Your task to perform on an android device: open app "HBO Max: Stream TV & Movies" Image 0: 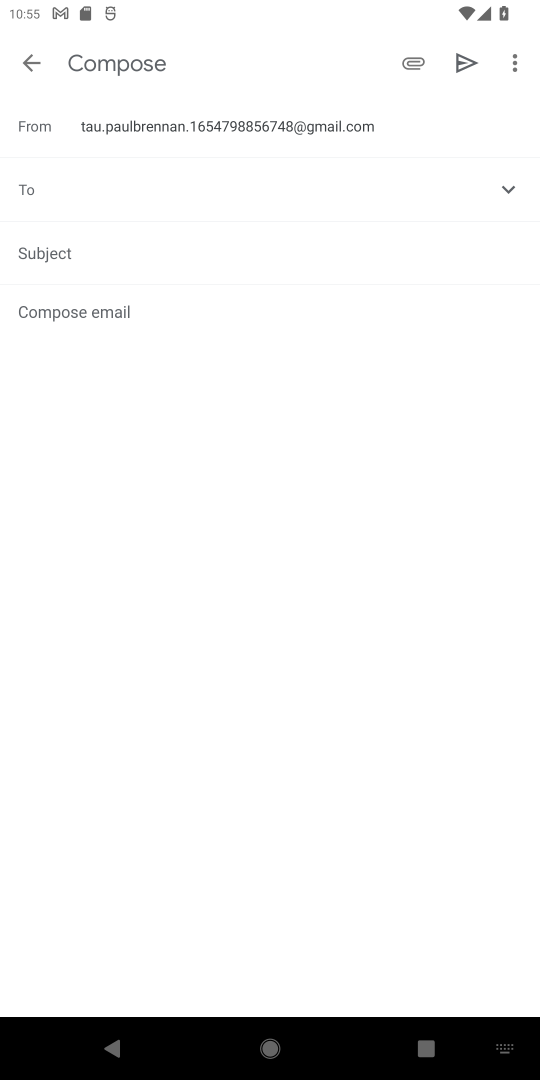
Step 0: press home button
Your task to perform on an android device: open app "HBO Max: Stream TV & Movies" Image 1: 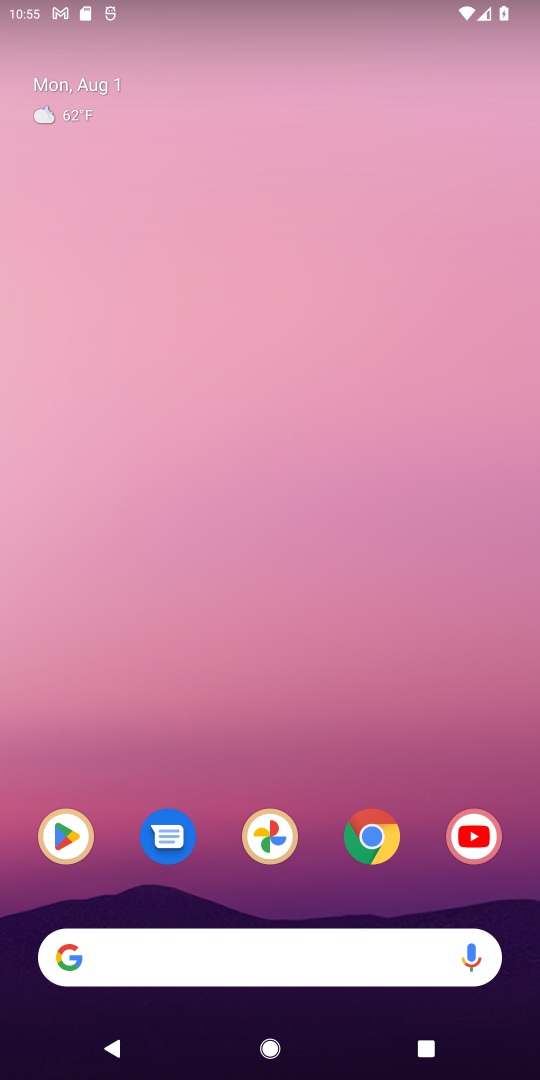
Step 1: click (67, 842)
Your task to perform on an android device: open app "HBO Max: Stream TV & Movies" Image 2: 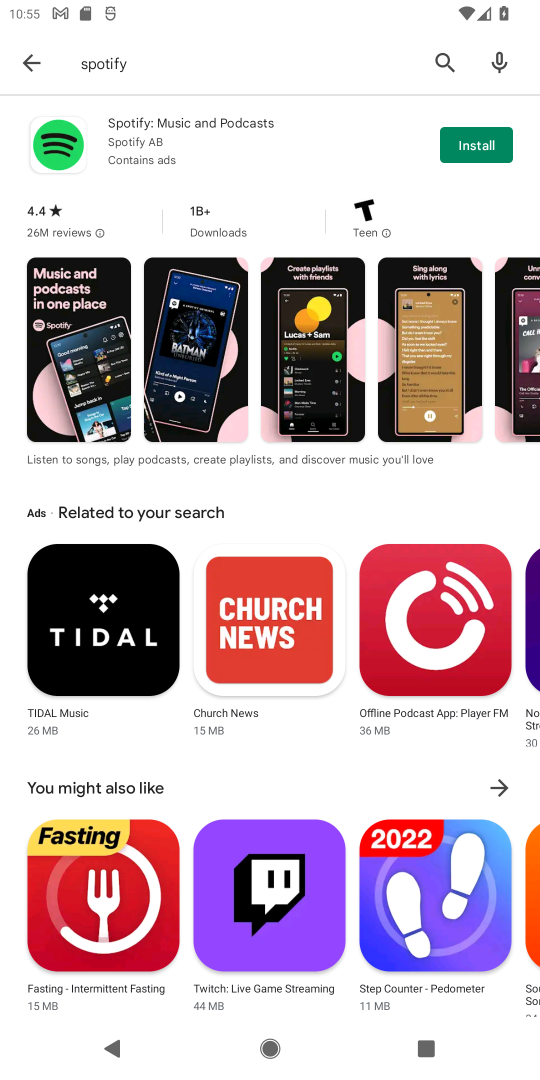
Step 2: click (440, 63)
Your task to perform on an android device: open app "HBO Max: Stream TV & Movies" Image 3: 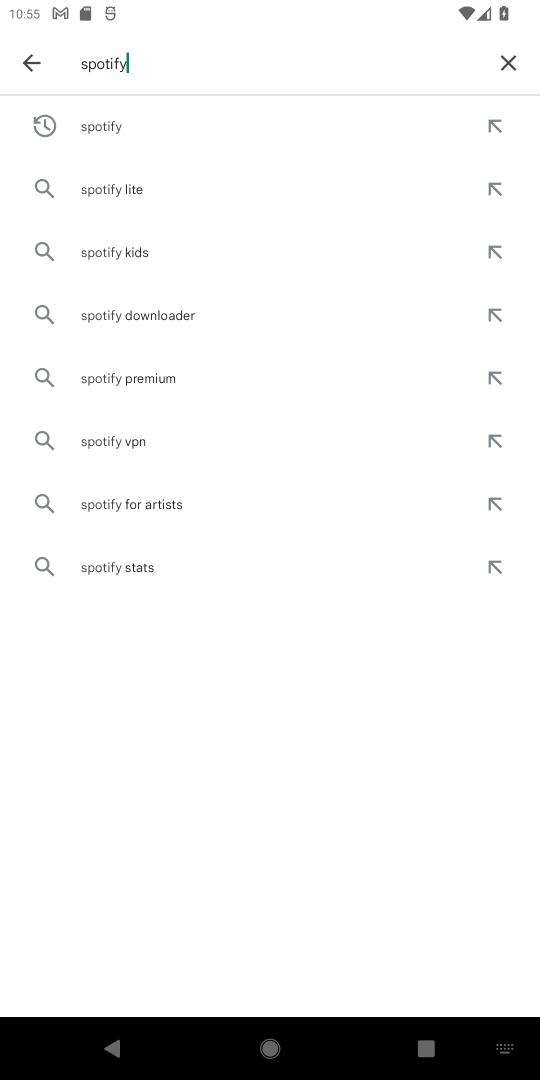
Step 3: click (507, 63)
Your task to perform on an android device: open app "HBO Max: Stream TV & Movies" Image 4: 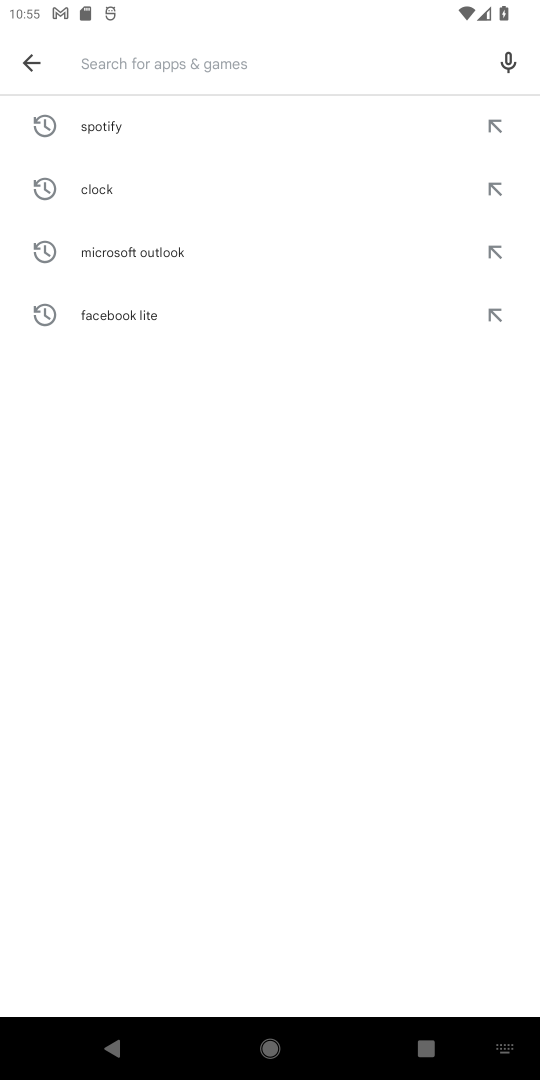
Step 4: type "hbo"
Your task to perform on an android device: open app "HBO Max: Stream TV & Movies" Image 5: 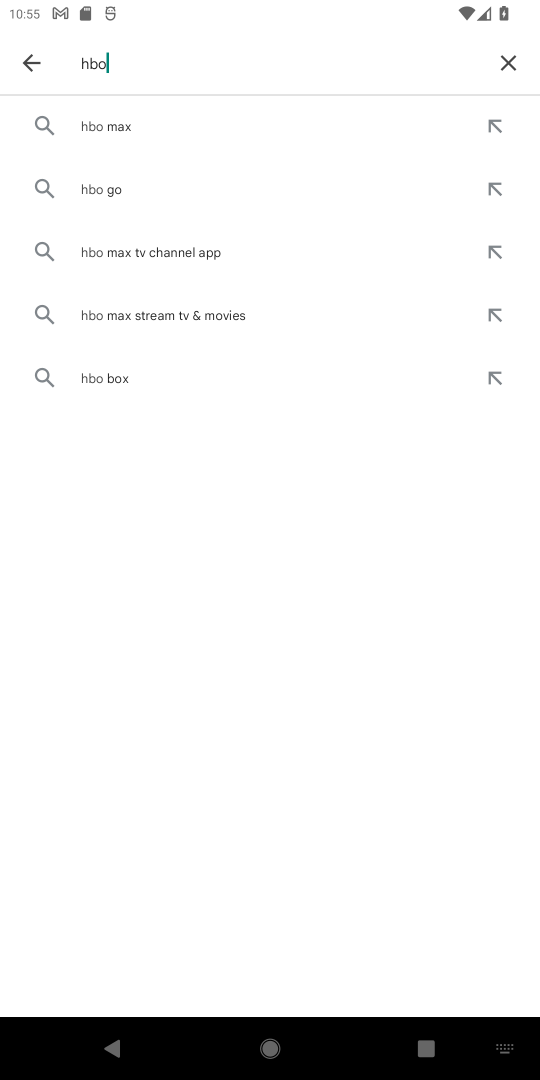
Step 5: click (99, 129)
Your task to perform on an android device: open app "HBO Max: Stream TV & Movies" Image 6: 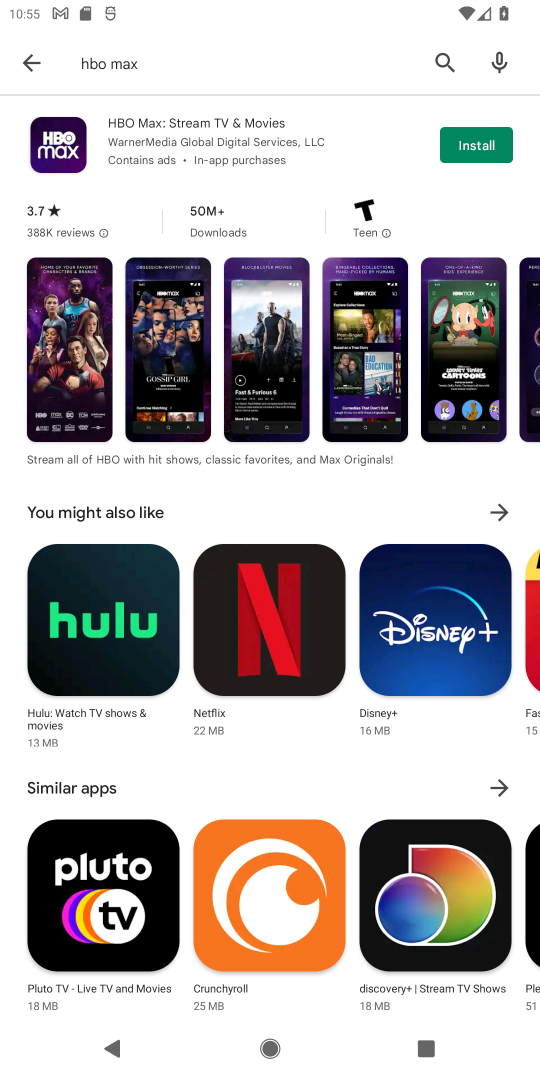
Step 6: click (261, 142)
Your task to perform on an android device: open app "HBO Max: Stream TV & Movies" Image 7: 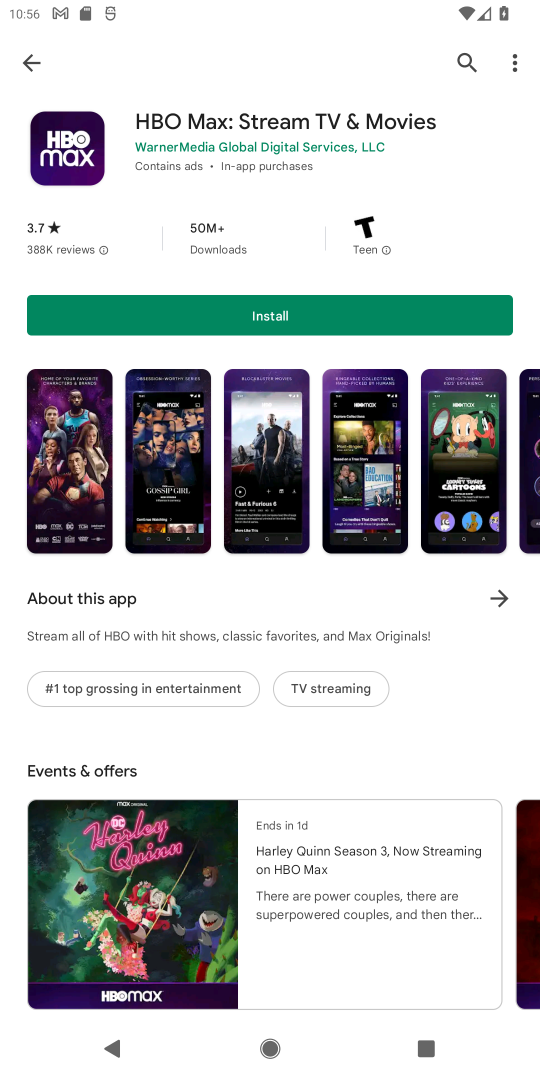
Step 7: task complete